Your task to perform on an android device: Open sound settings Image 0: 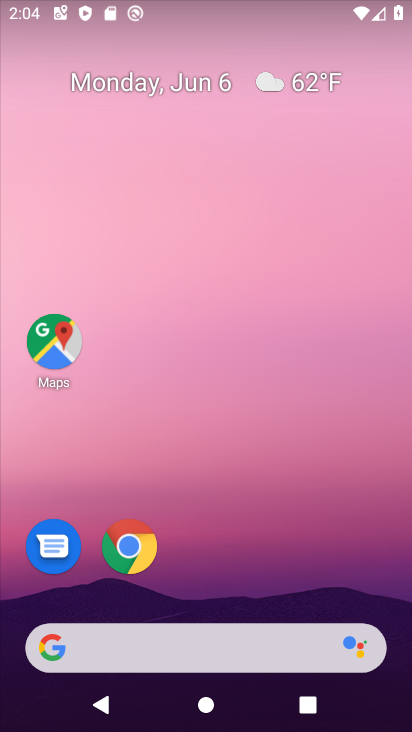
Step 0: drag from (283, 491) to (123, 174)
Your task to perform on an android device: Open sound settings Image 1: 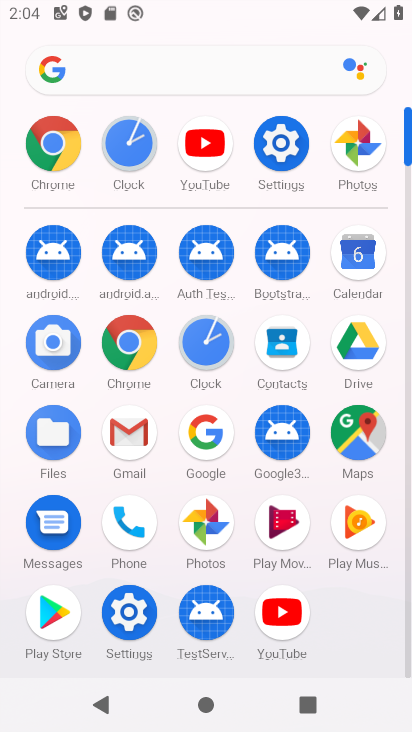
Step 1: click (279, 143)
Your task to perform on an android device: Open sound settings Image 2: 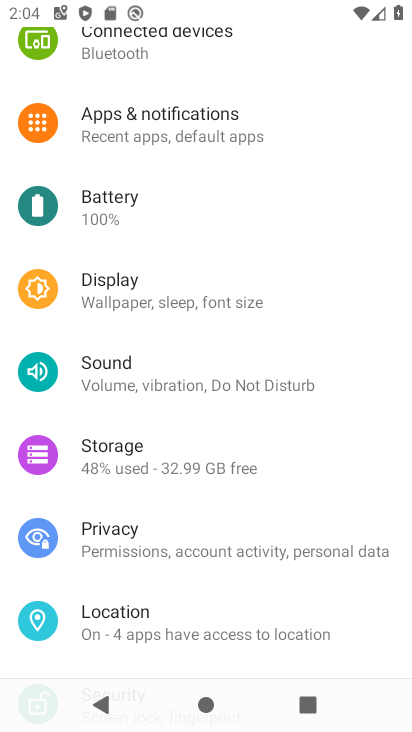
Step 2: click (118, 384)
Your task to perform on an android device: Open sound settings Image 3: 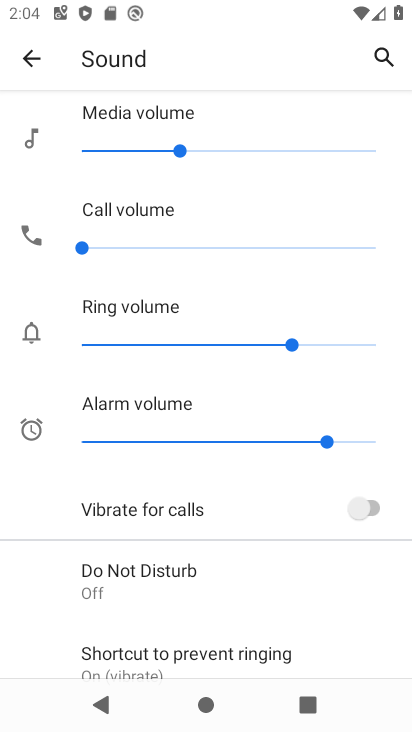
Step 3: task complete